Your task to perform on an android device: How do I get to the nearest IKEA? Image 0: 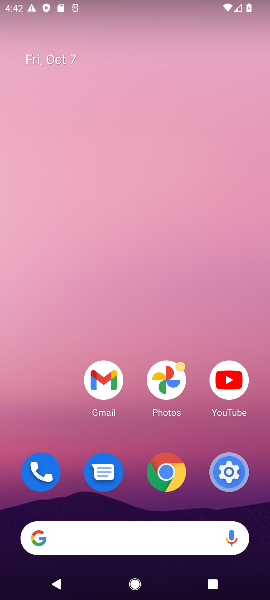
Step 0: click (161, 474)
Your task to perform on an android device: How do I get to the nearest IKEA? Image 1: 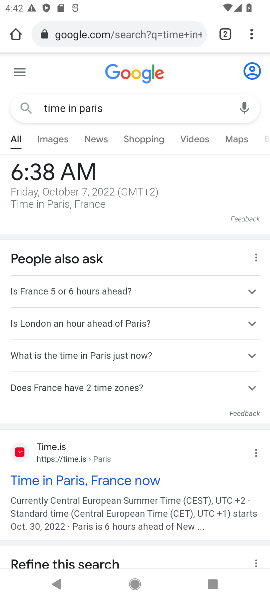
Step 1: click (171, 32)
Your task to perform on an android device: How do I get to the nearest IKEA? Image 2: 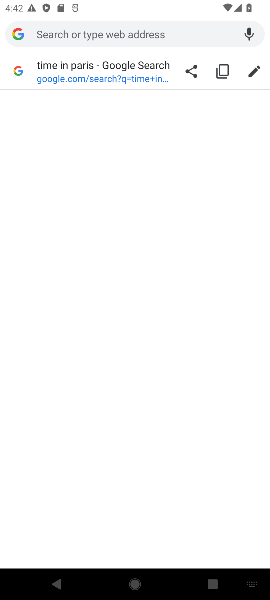
Step 2: type "nearest IKEA"
Your task to perform on an android device: How do I get to the nearest IKEA? Image 3: 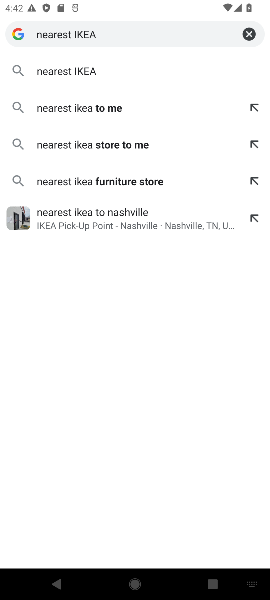
Step 3: click (102, 71)
Your task to perform on an android device: How do I get to the nearest IKEA? Image 4: 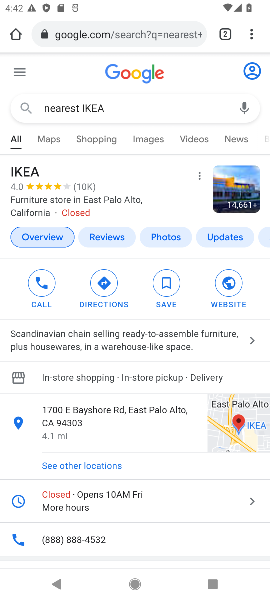
Step 4: drag from (173, 426) to (155, 256)
Your task to perform on an android device: How do I get to the nearest IKEA? Image 5: 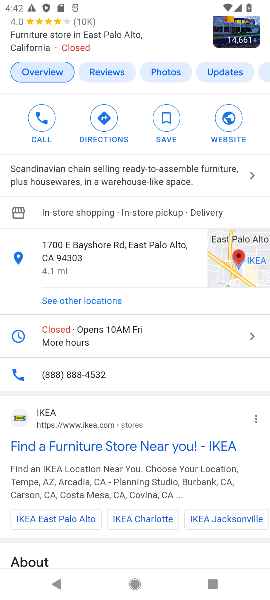
Step 5: drag from (155, 256) to (157, 447)
Your task to perform on an android device: How do I get to the nearest IKEA? Image 6: 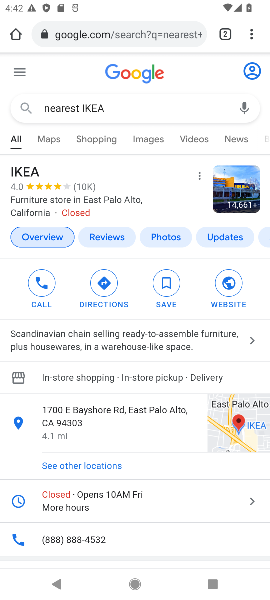
Step 6: click (106, 284)
Your task to perform on an android device: How do I get to the nearest IKEA? Image 7: 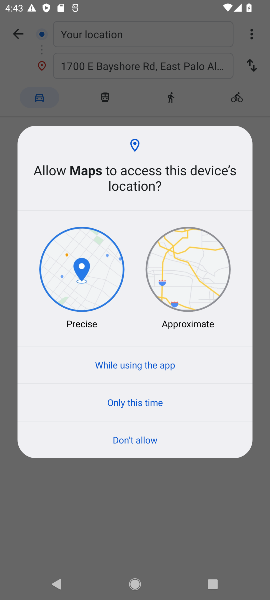
Step 7: task complete